Your task to perform on an android device: turn pop-ups off in chrome Image 0: 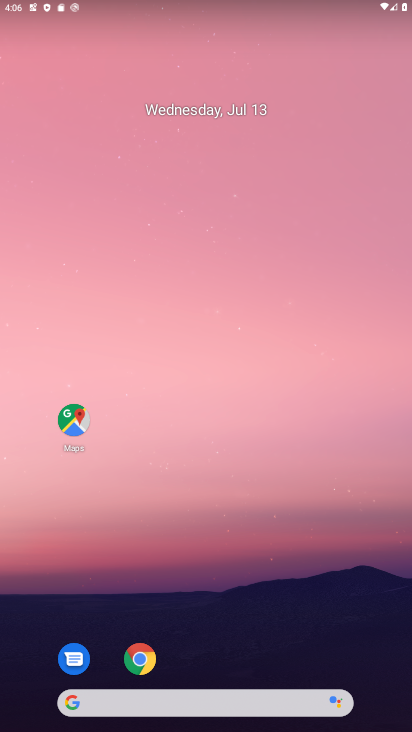
Step 0: click (143, 655)
Your task to perform on an android device: turn pop-ups off in chrome Image 1: 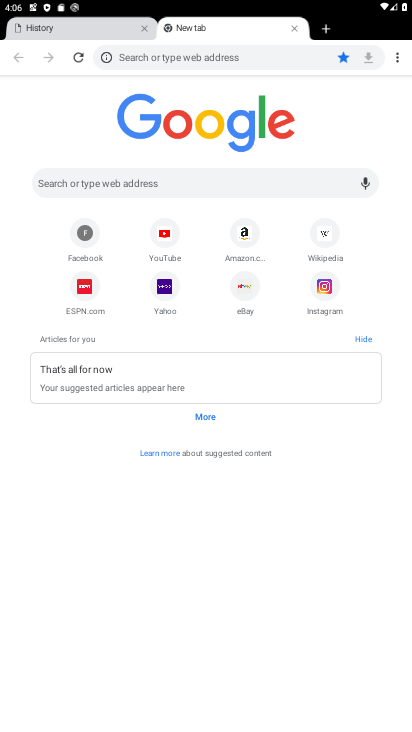
Step 1: click (399, 56)
Your task to perform on an android device: turn pop-ups off in chrome Image 2: 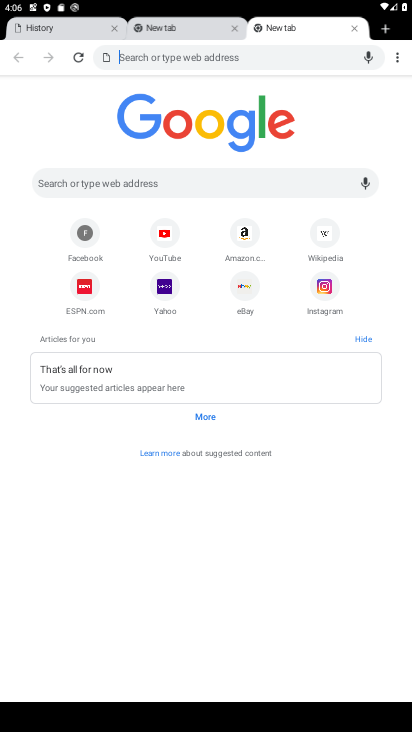
Step 2: click (400, 52)
Your task to perform on an android device: turn pop-ups off in chrome Image 3: 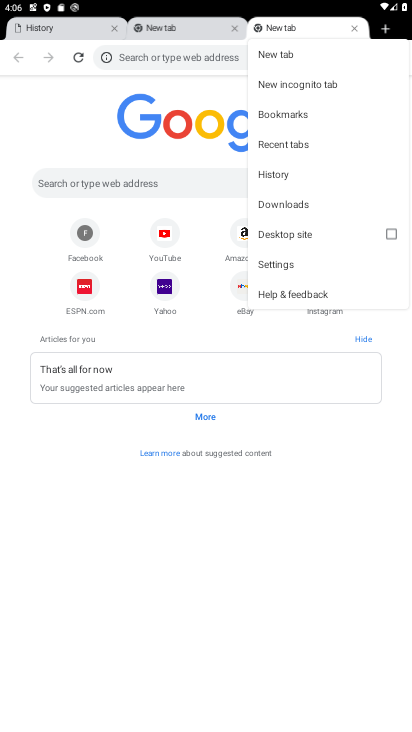
Step 3: click (293, 264)
Your task to perform on an android device: turn pop-ups off in chrome Image 4: 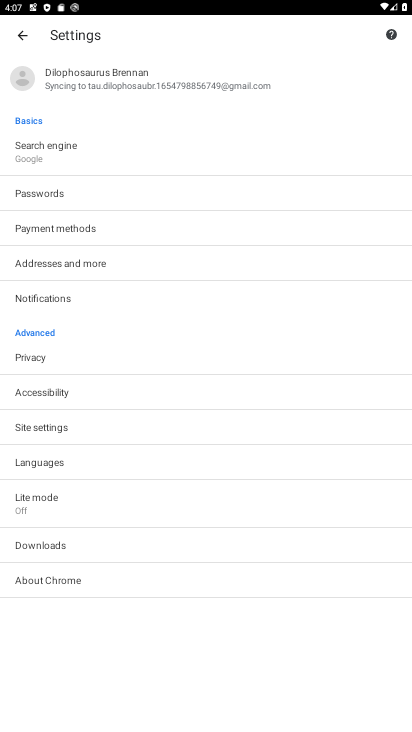
Step 4: click (67, 423)
Your task to perform on an android device: turn pop-ups off in chrome Image 5: 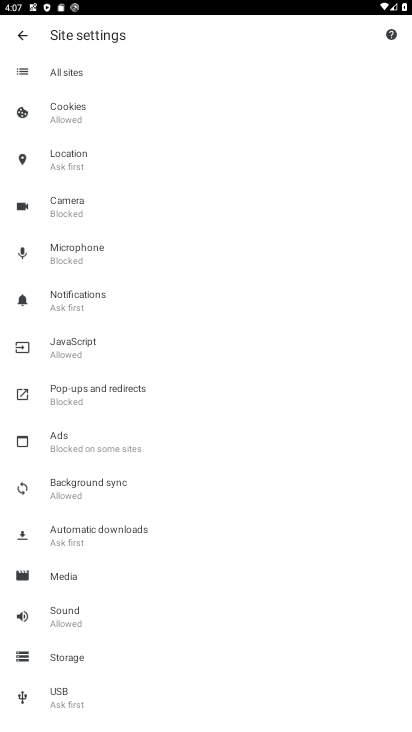
Step 5: click (90, 390)
Your task to perform on an android device: turn pop-ups off in chrome Image 6: 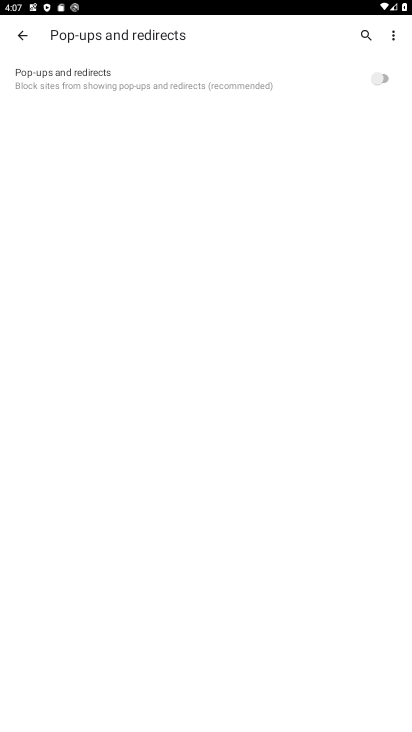
Step 6: task complete